Your task to perform on an android device: set an alarm Image 0: 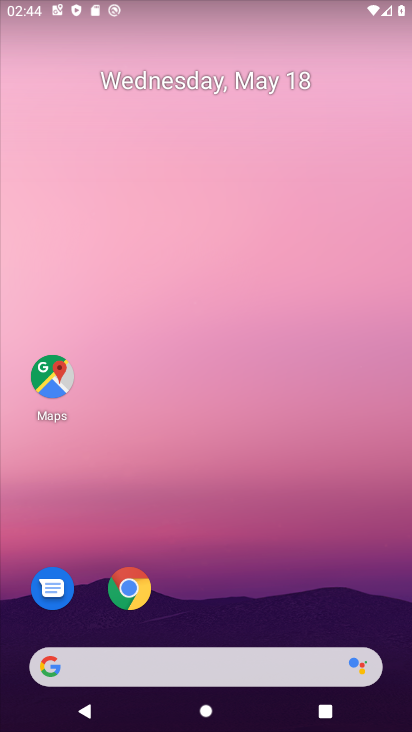
Step 0: press home button
Your task to perform on an android device: set an alarm Image 1: 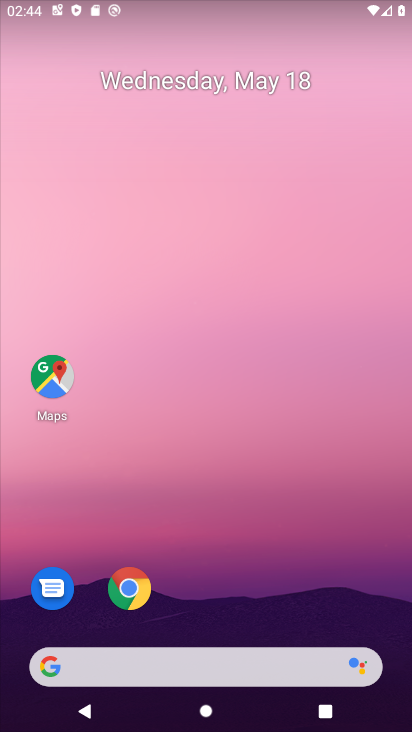
Step 1: click (128, 528)
Your task to perform on an android device: set an alarm Image 2: 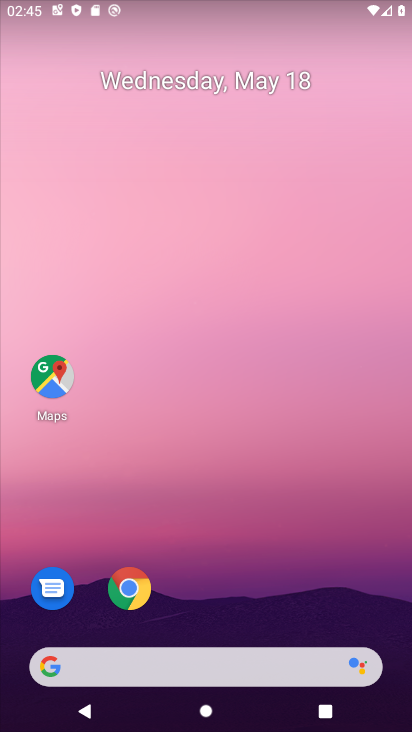
Step 2: drag from (48, 557) to (215, 263)
Your task to perform on an android device: set an alarm Image 3: 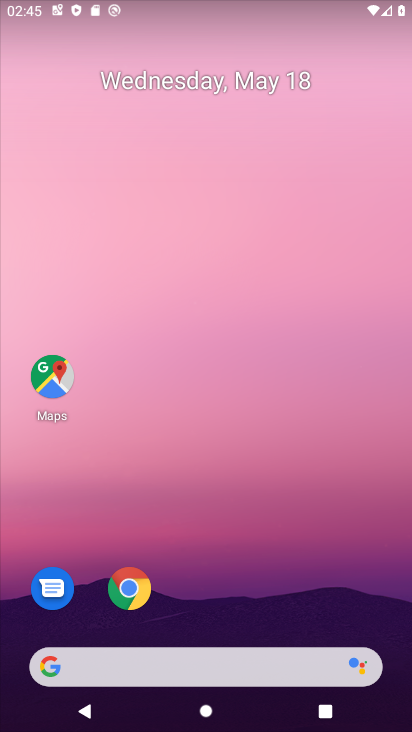
Step 3: drag from (30, 554) to (168, 129)
Your task to perform on an android device: set an alarm Image 4: 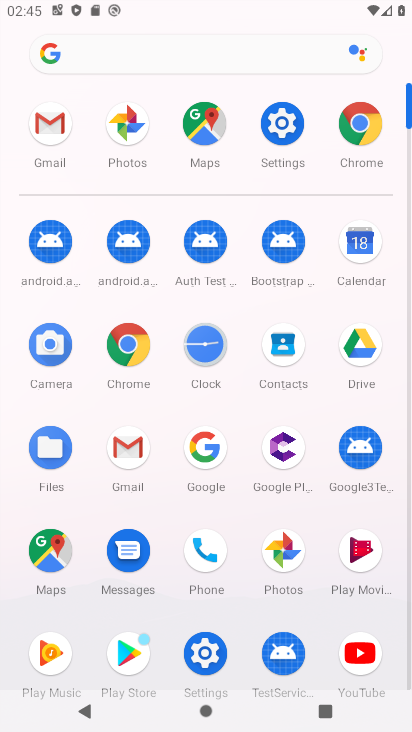
Step 4: click (210, 348)
Your task to perform on an android device: set an alarm Image 5: 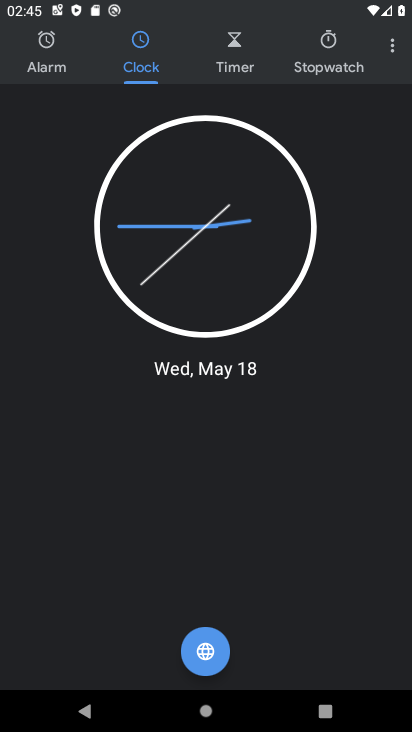
Step 5: click (59, 59)
Your task to perform on an android device: set an alarm Image 6: 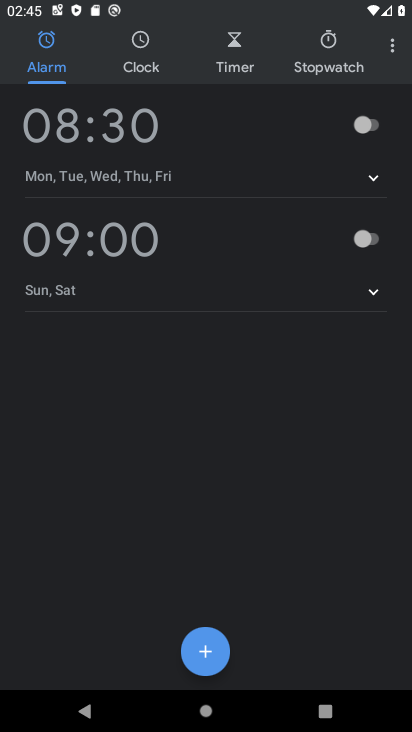
Step 6: click (204, 650)
Your task to perform on an android device: set an alarm Image 7: 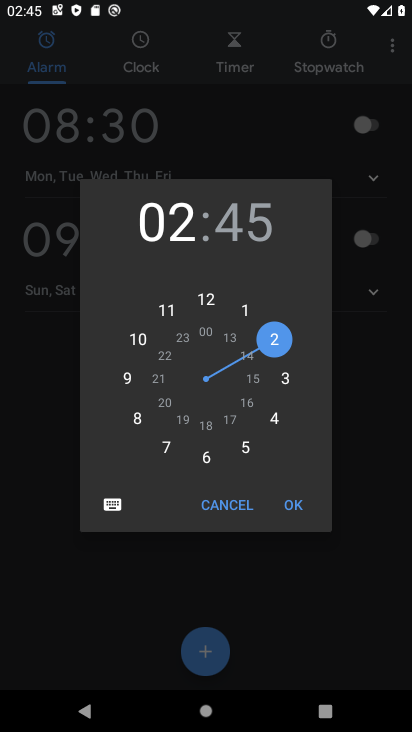
Step 7: click (300, 504)
Your task to perform on an android device: set an alarm Image 8: 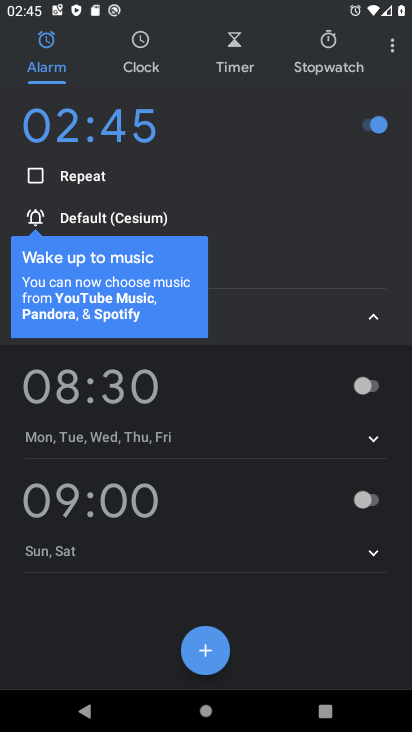
Step 8: task complete